Your task to perform on an android device: turn on the 24-hour format for clock Image 0: 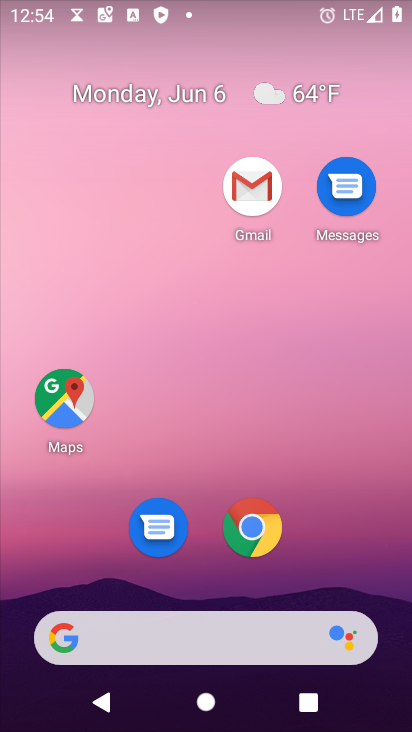
Step 0: drag from (350, 568) to (307, 58)
Your task to perform on an android device: turn on the 24-hour format for clock Image 1: 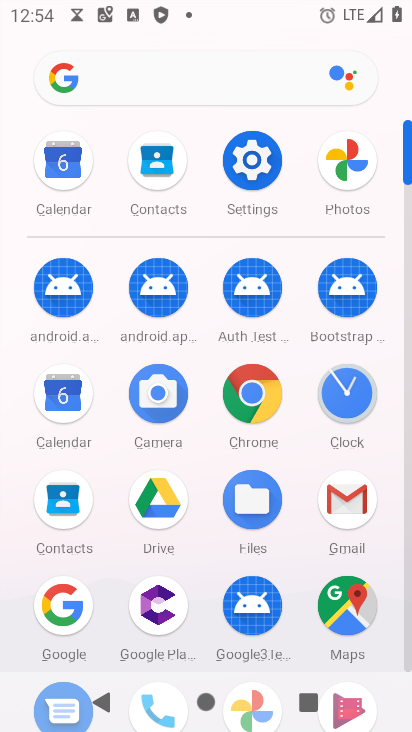
Step 1: click (355, 400)
Your task to perform on an android device: turn on the 24-hour format for clock Image 2: 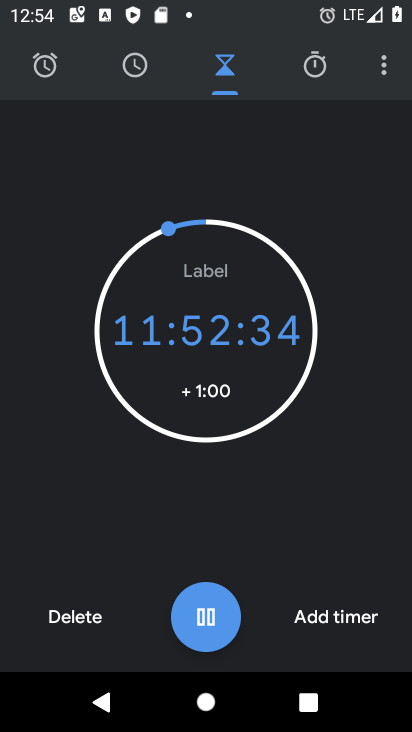
Step 2: click (369, 54)
Your task to perform on an android device: turn on the 24-hour format for clock Image 3: 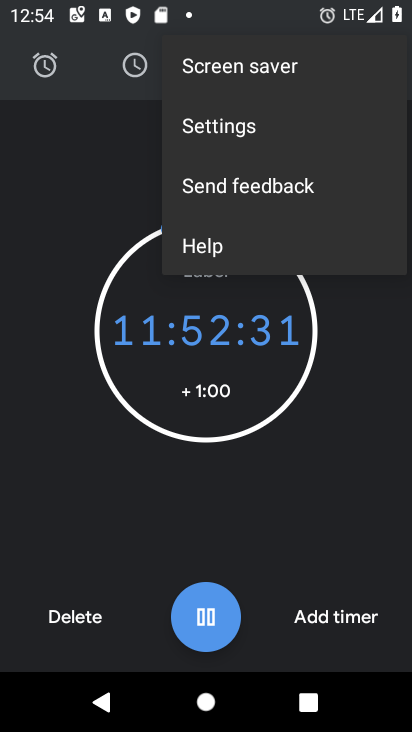
Step 3: click (262, 127)
Your task to perform on an android device: turn on the 24-hour format for clock Image 4: 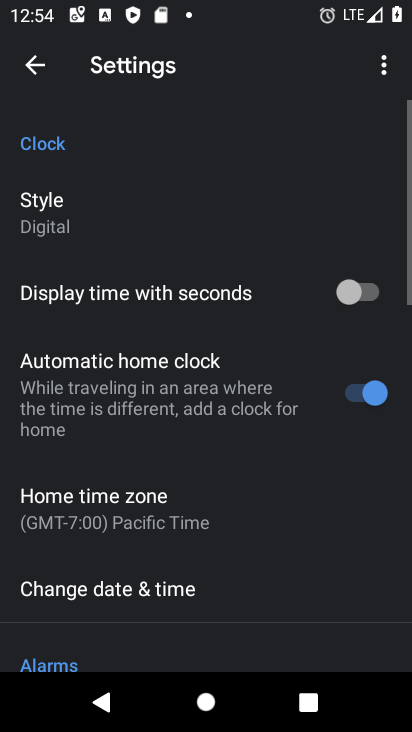
Step 4: drag from (192, 490) to (193, 102)
Your task to perform on an android device: turn on the 24-hour format for clock Image 5: 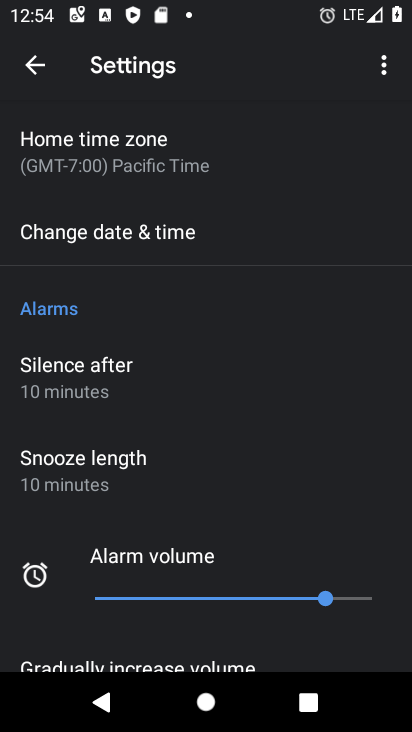
Step 5: click (158, 234)
Your task to perform on an android device: turn on the 24-hour format for clock Image 6: 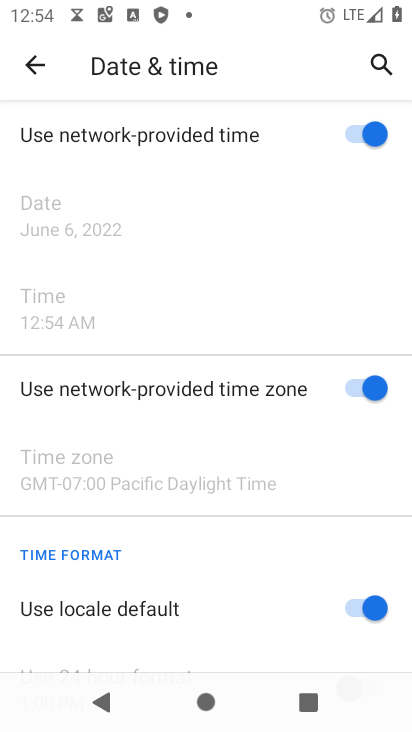
Step 6: drag from (166, 585) to (185, 103)
Your task to perform on an android device: turn on the 24-hour format for clock Image 7: 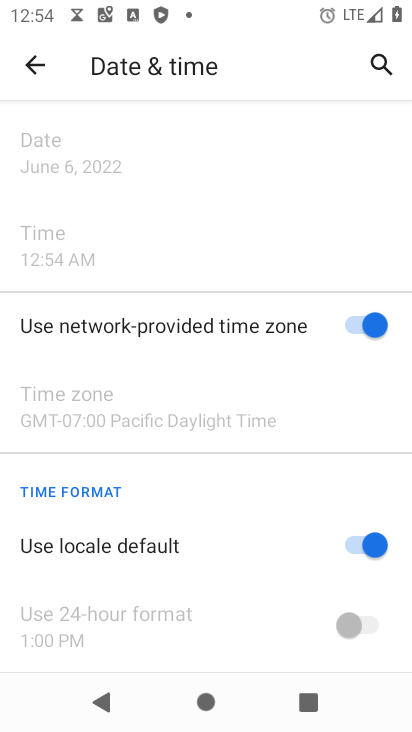
Step 7: click (366, 541)
Your task to perform on an android device: turn on the 24-hour format for clock Image 8: 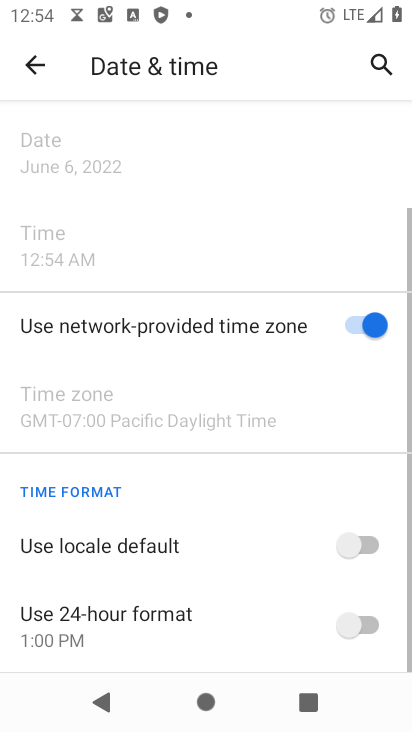
Step 8: click (344, 632)
Your task to perform on an android device: turn on the 24-hour format for clock Image 9: 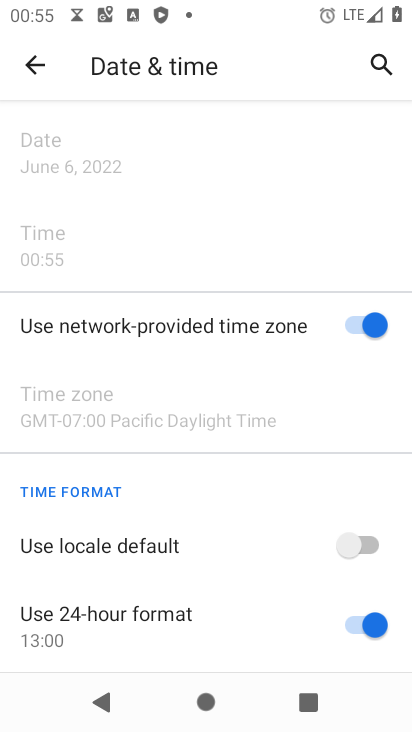
Step 9: task complete